Your task to perform on an android device: change the clock style Image 0: 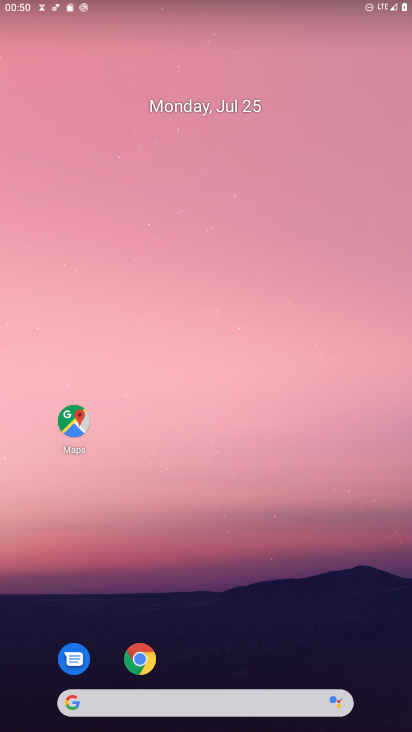
Step 0: drag from (194, 610) to (182, 165)
Your task to perform on an android device: change the clock style Image 1: 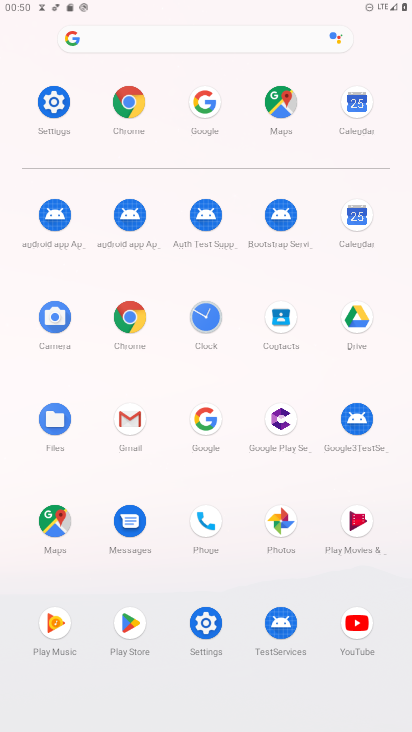
Step 1: click (211, 326)
Your task to perform on an android device: change the clock style Image 2: 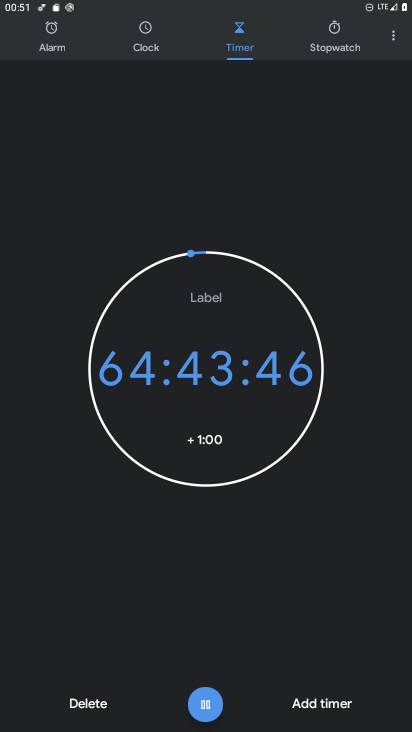
Step 2: click (388, 34)
Your task to perform on an android device: change the clock style Image 3: 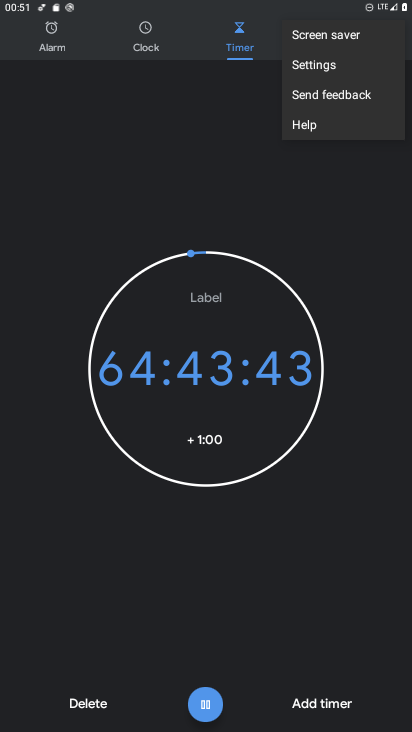
Step 3: click (316, 59)
Your task to perform on an android device: change the clock style Image 4: 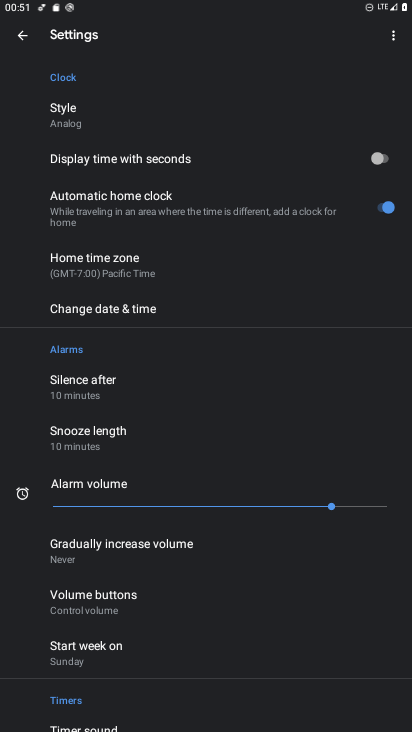
Step 4: click (98, 102)
Your task to perform on an android device: change the clock style Image 5: 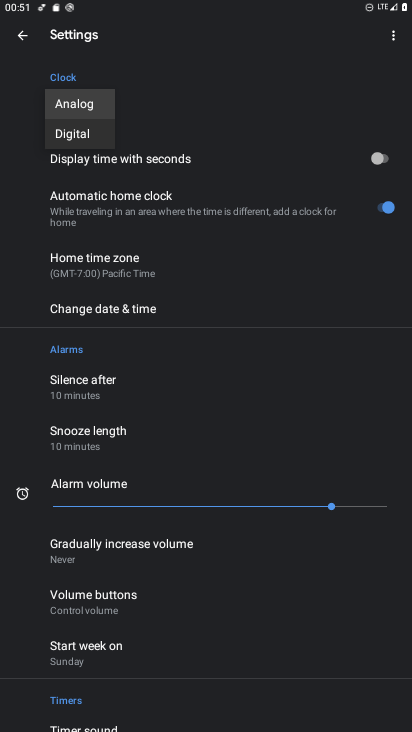
Step 5: click (66, 141)
Your task to perform on an android device: change the clock style Image 6: 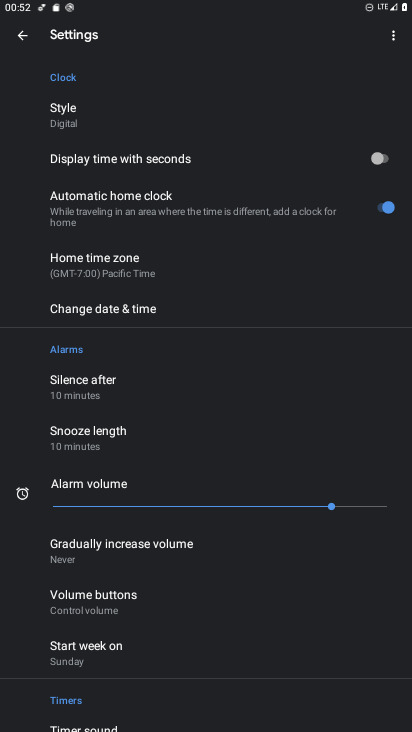
Step 6: task complete